Your task to perform on an android device: Show me productivity apps on the Play Store Image 0: 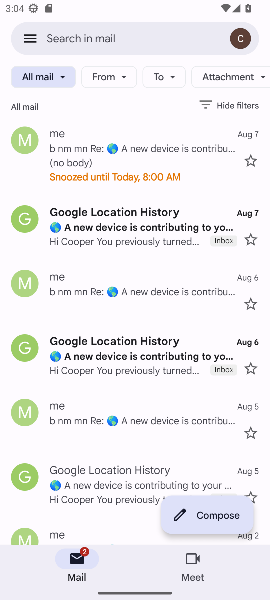
Step 0: press back button
Your task to perform on an android device: Show me productivity apps on the Play Store Image 1: 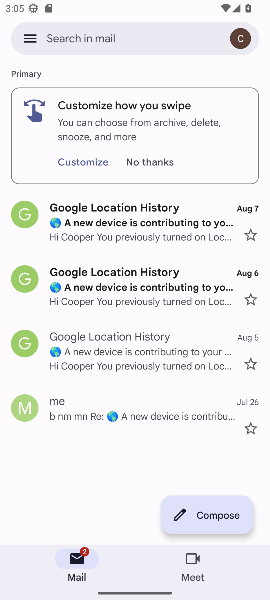
Step 1: press back button
Your task to perform on an android device: Show me productivity apps on the Play Store Image 2: 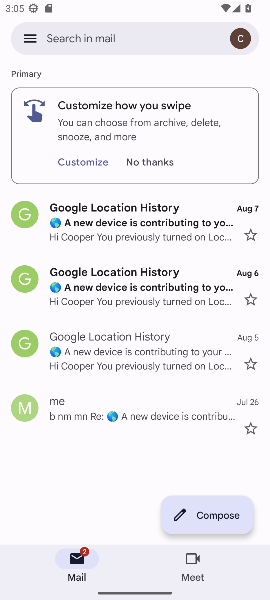
Step 2: press back button
Your task to perform on an android device: Show me productivity apps on the Play Store Image 3: 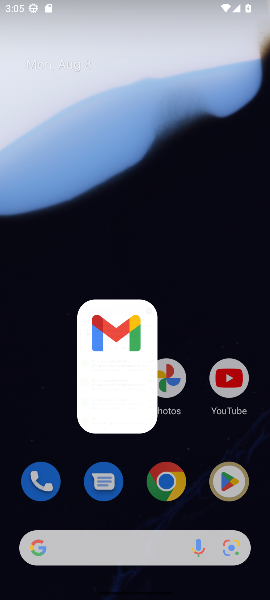
Step 3: press back button
Your task to perform on an android device: Show me productivity apps on the Play Store Image 4: 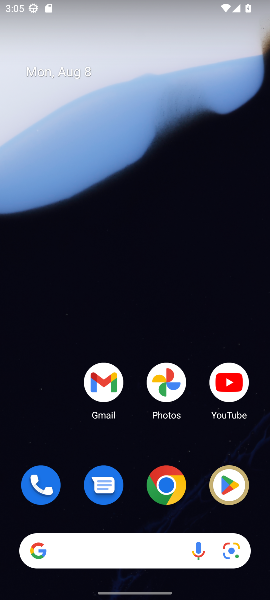
Step 4: press back button
Your task to perform on an android device: Show me productivity apps on the Play Store Image 5: 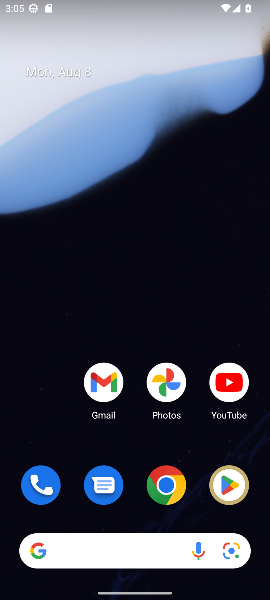
Step 5: press back button
Your task to perform on an android device: Show me productivity apps on the Play Store Image 6: 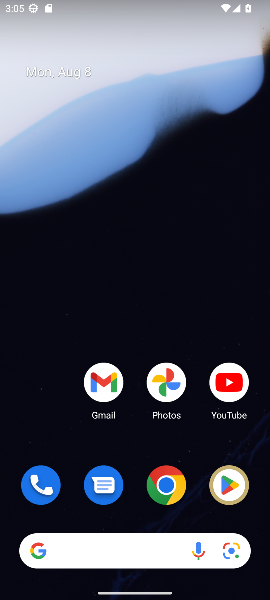
Step 6: press back button
Your task to perform on an android device: Show me productivity apps on the Play Store Image 7: 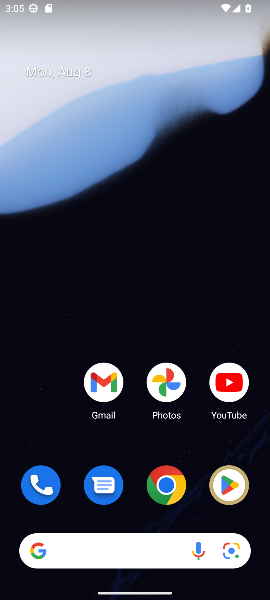
Step 7: drag from (211, 487) to (155, 44)
Your task to perform on an android device: Show me productivity apps on the Play Store Image 8: 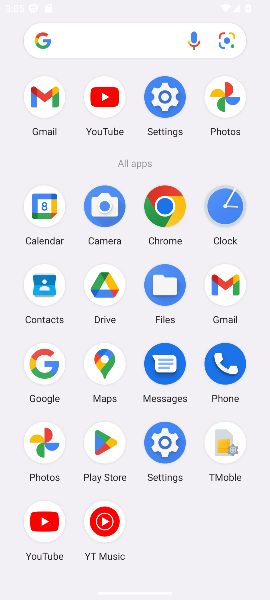
Step 8: drag from (190, 414) to (183, 117)
Your task to perform on an android device: Show me productivity apps on the Play Store Image 9: 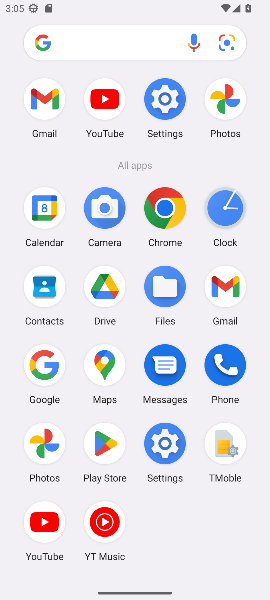
Step 9: click (100, 431)
Your task to perform on an android device: Show me productivity apps on the Play Store Image 10: 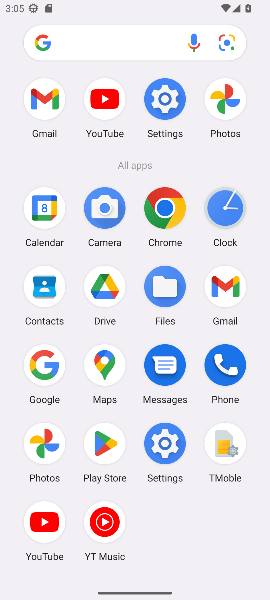
Step 10: click (100, 431)
Your task to perform on an android device: Show me productivity apps on the Play Store Image 11: 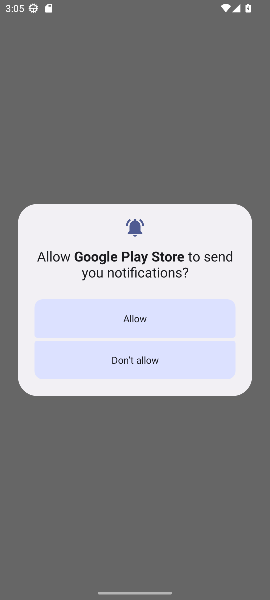
Step 11: click (102, 438)
Your task to perform on an android device: Show me productivity apps on the Play Store Image 12: 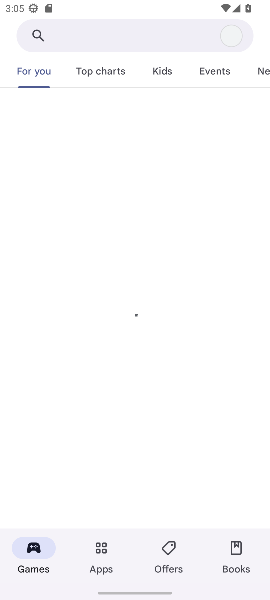
Step 12: click (144, 346)
Your task to perform on an android device: Show me productivity apps on the Play Store Image 13: 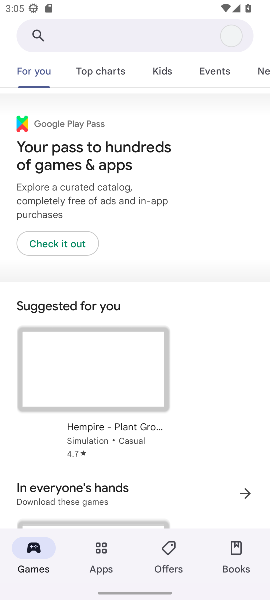
Step 13: click (145, 335)
Your task to perform on an android device: Show me productivity apps on the Play Store Image 14: 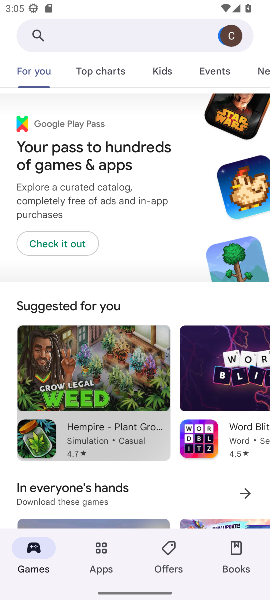
Step 14: click (145, 342)
Your task to perform on an android device: Show me productivity apps on the Play Store Image 15: 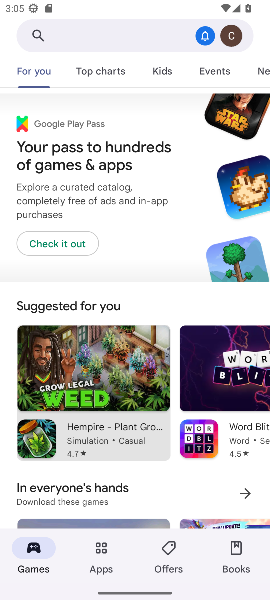
Step 15: click (145, 342)
Your task to perform on an android device: Show me productivity apps on the Play Store Image 16: 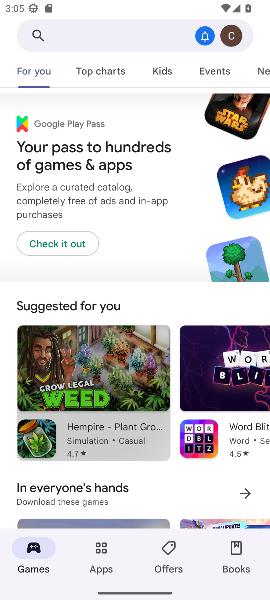
Step 16: click (145, 342)
Your task to perform on an android device: Show me productivity apps on the Play Store Image 17: 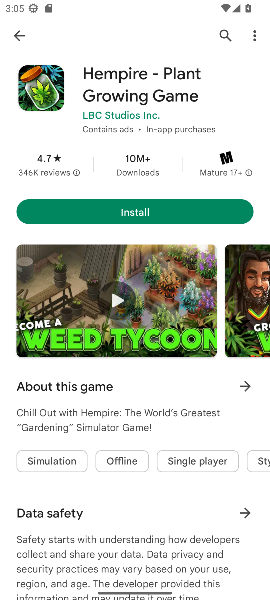
Step 17: click (17, 35)
Your task to perform on an android device: Show me productivity apps on the Play Store Image 18: 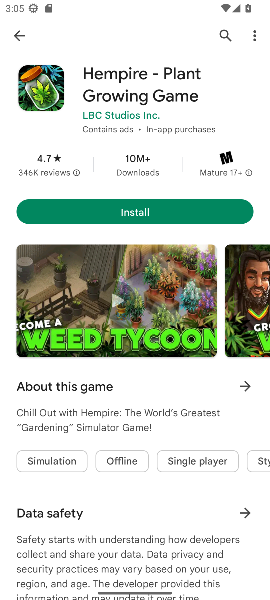
Step 18: click (17, 35)
Your task to perform on an android device: Show me productivity apps on the Play Store Image 19: 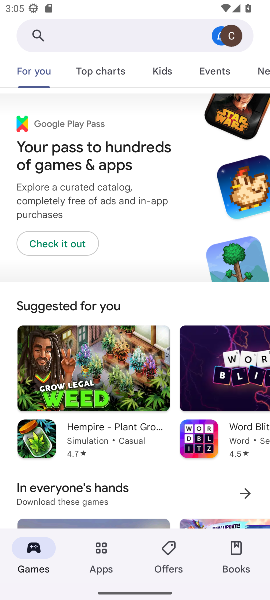
Step 19: click (97, 29)
Your task to perform on an android device: Show me productivity apps on the Play Store Image 20: 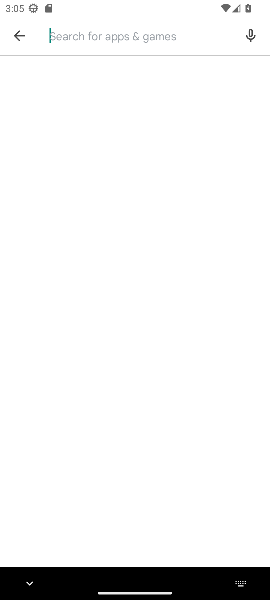
Step 20: type "productivity apps"
Your task to perform on an android device: Show me productivity apps on the Play Store Image 21: 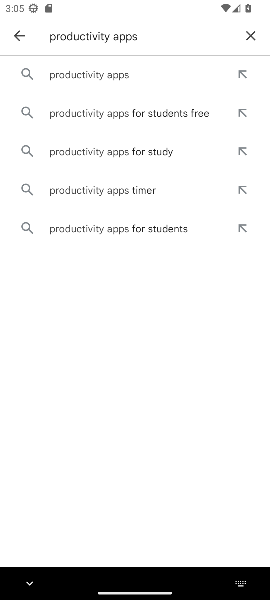
Step 21: click (100, 78)
Your task to perform on an android device: Show me productivity apps on the Play Store Image 22: 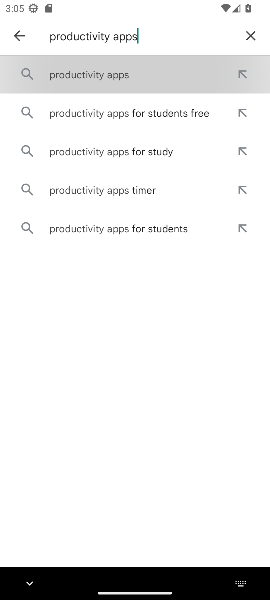
Step 22: click (101, 77)
Your task to perform on an android device: Show me productivity apps on the Play Store Image 23: 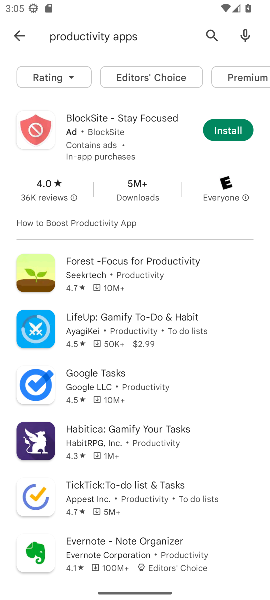
Step 23: task complete